Your task to perform on an android device: create a new album in the google photos Image 0: 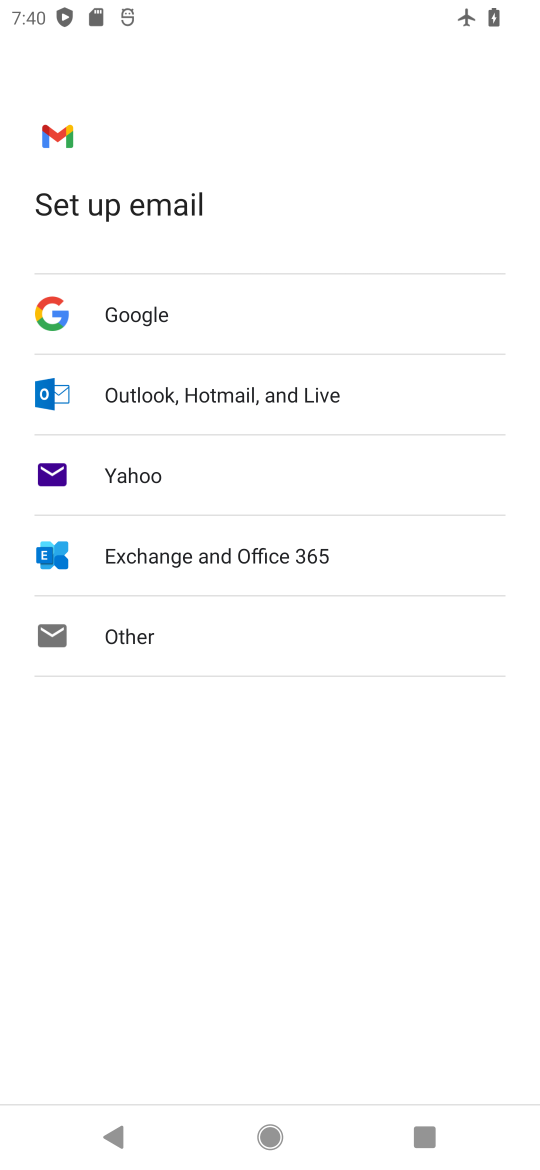
Step 0: press home button
Your task to perform on an android device: create a new album in the google photos Image 1: 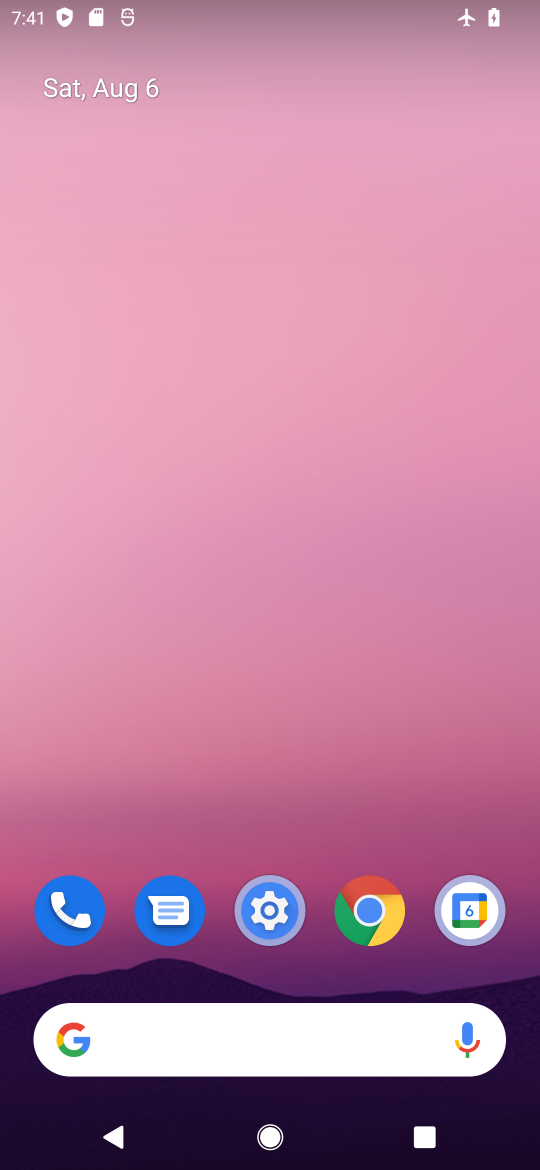
Step 1: drag from (517, 1053) to (433, 285)
Your task to perform on an android device: create a new album in the google photos Image 2: 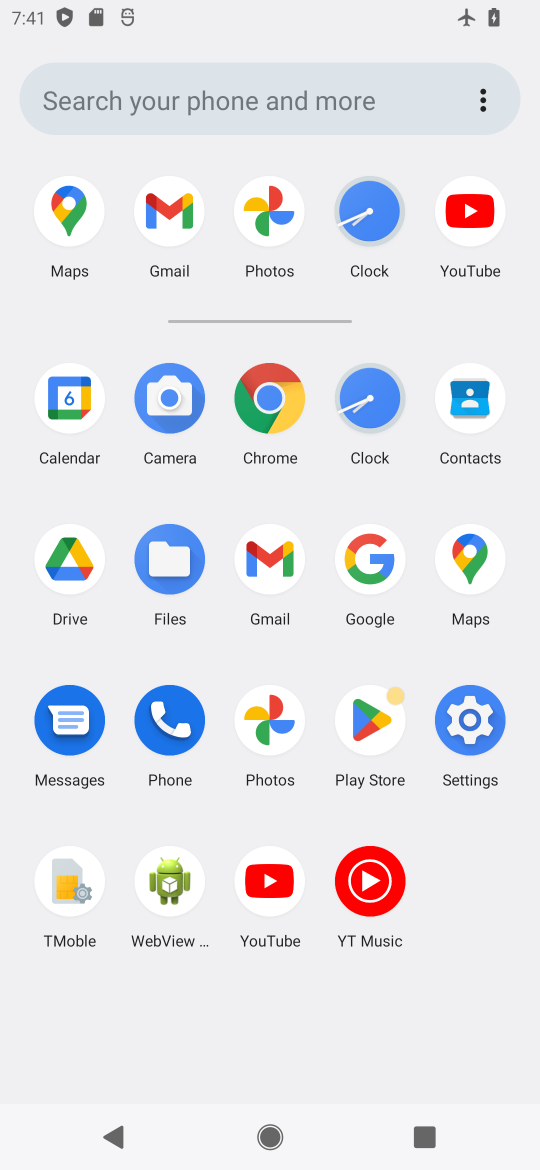
Step 2: click (280, 714)
Your task to perform on an android device: create a new album in the google photos Image 3: 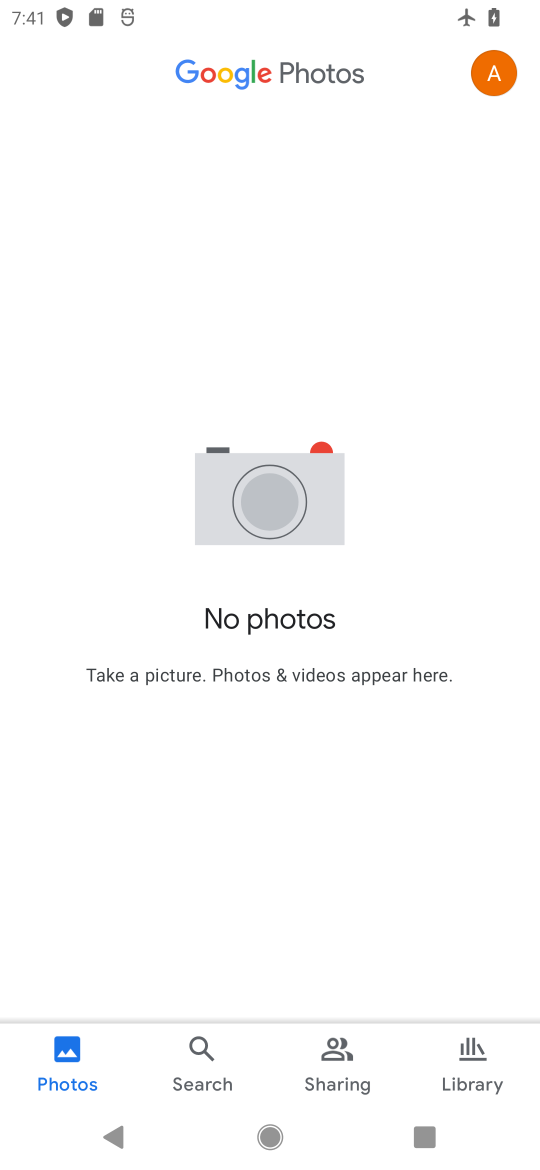
Step 3: click (499, 63)
Your task to perform on an android device: create a new album in the google photos Image 4: 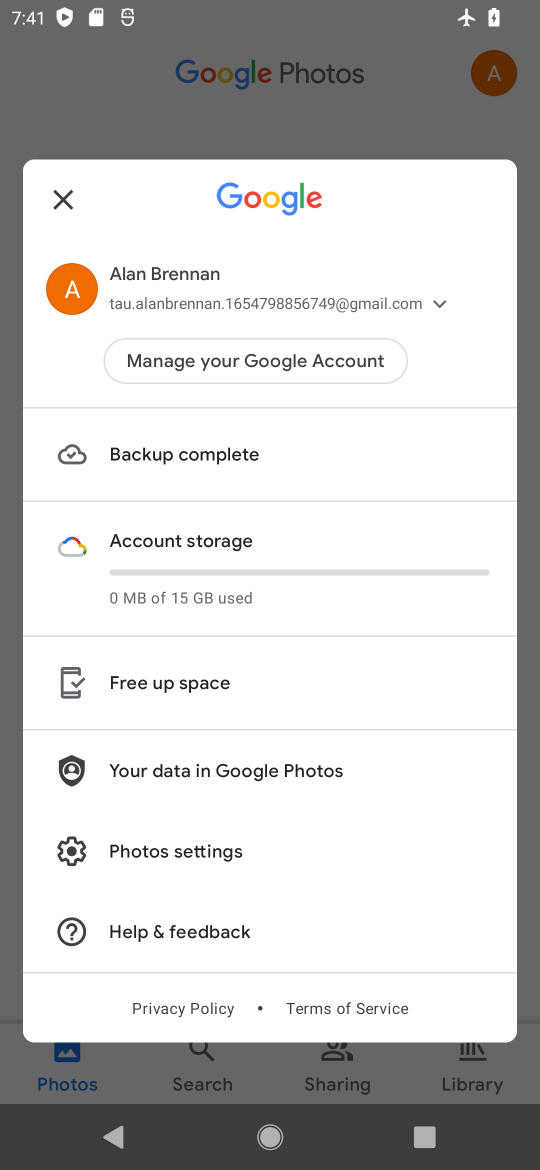
Step 4: task complete